Your task to perform on an android device: change keyboard looks Image 0: 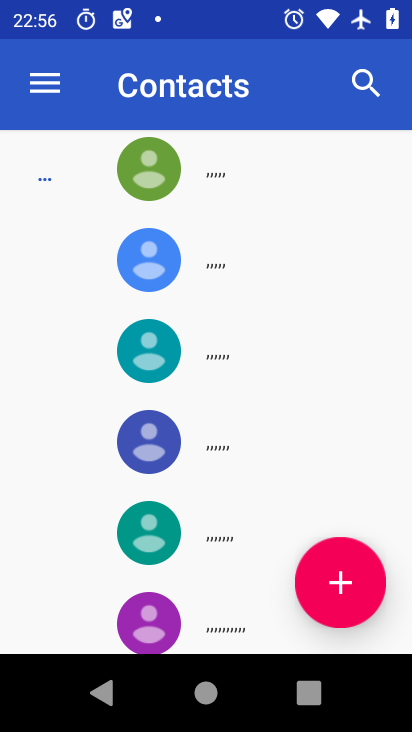
Step 0: press home button
Your task to perform on an android device: change keyboard looks Image 1: 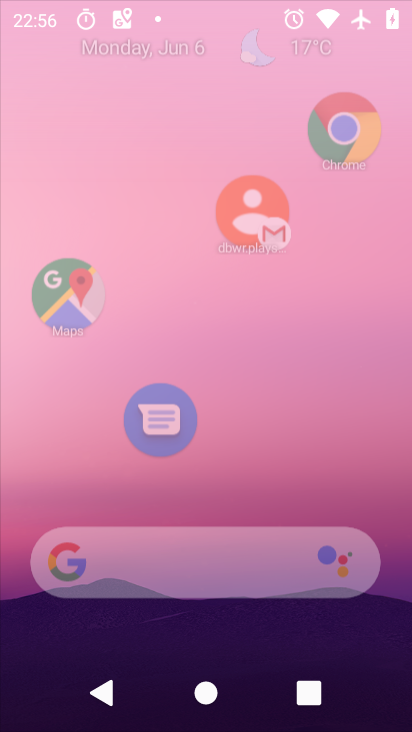
Step 1: drag from (160, 517) to (225, 6)
Your task to perform on an android device: change keyboard looks Image 2: 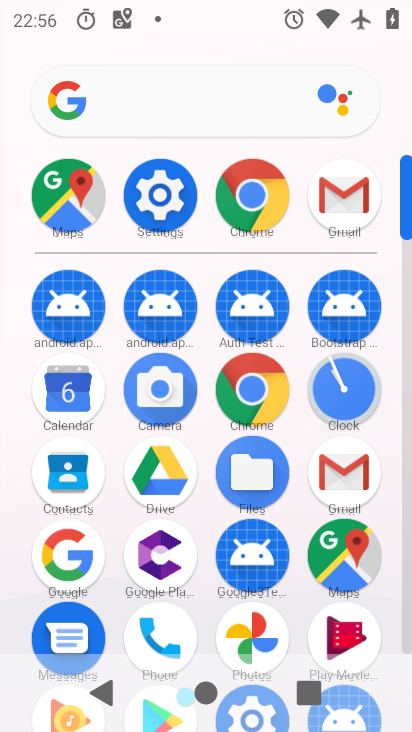
Step 2: click (151, 186)
Your task to perform on an android device: change keyboard looks Image 3: 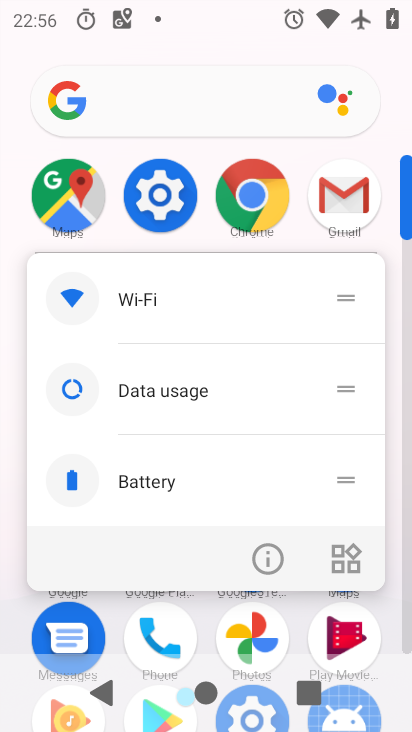
Step 3: click (273, 555)
Your task to perform on an android device: change keyboard looks Image 4: 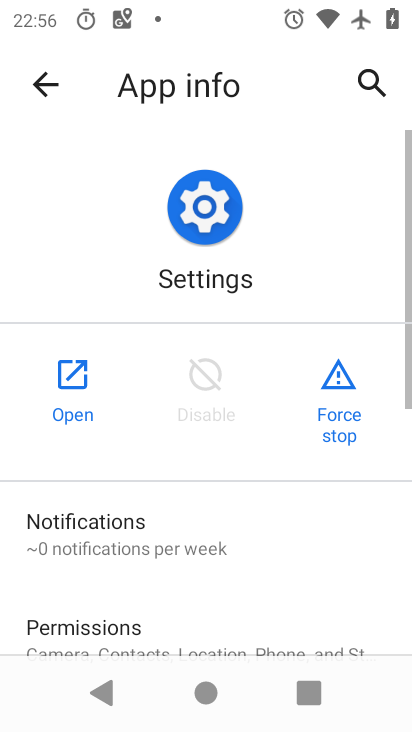
Step 4: click (83, 373)
Your task to perform on an android device: change keyboard looks Image 5: 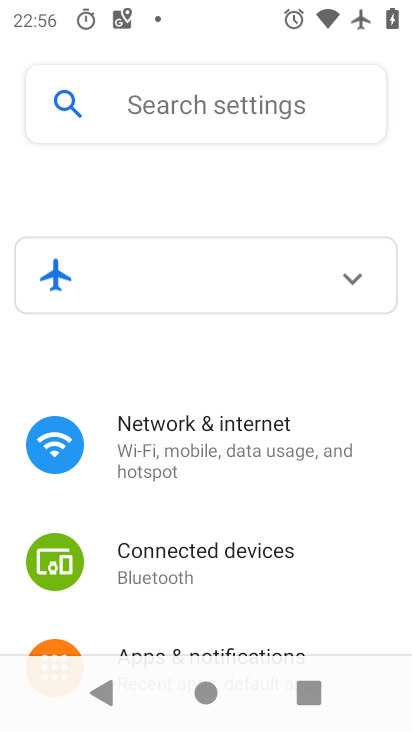
Step 5: drag from (217, 560) to (223, 190)
Your task to perform on an android device: change keyboard looks Image 6: 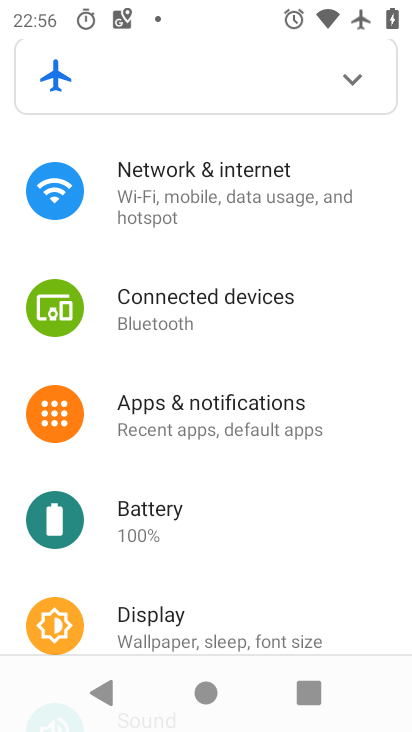
Step 6: drag from (257, 562) to (267, 193)
Your task to perform on an android device: change keyboard looks Image 7: 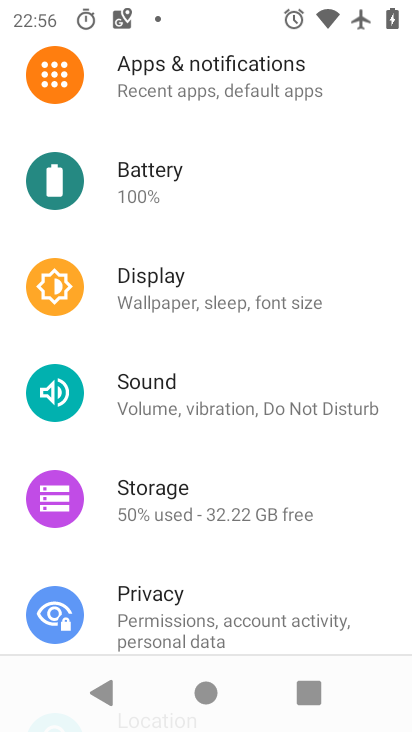
Step 7: drag from (236, 606) to (211, 3)
Your task to perform on an android device: change keyboard looks Image 8: 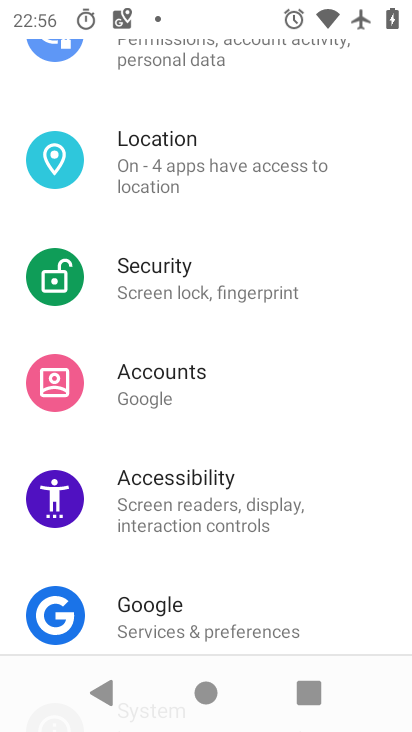
Step 8: drag from (189, 518) to (237, 281)
Your task to perform on an android device: change keyboard looks Image 9: 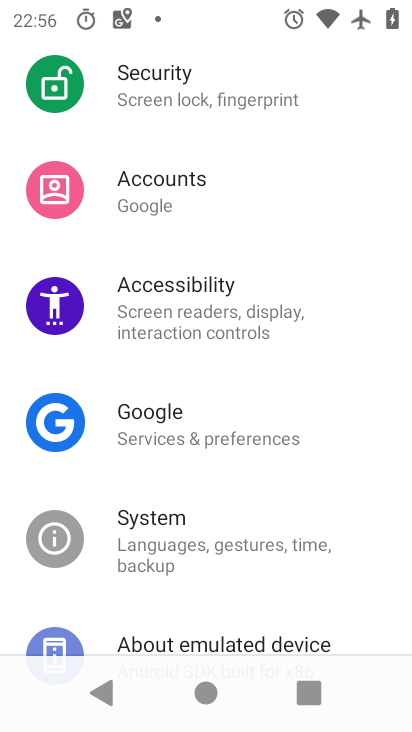
Step 9: drag from (185, 579) to (242, 296)
Your task to perform on an android device: change keyboard looks Image 10: 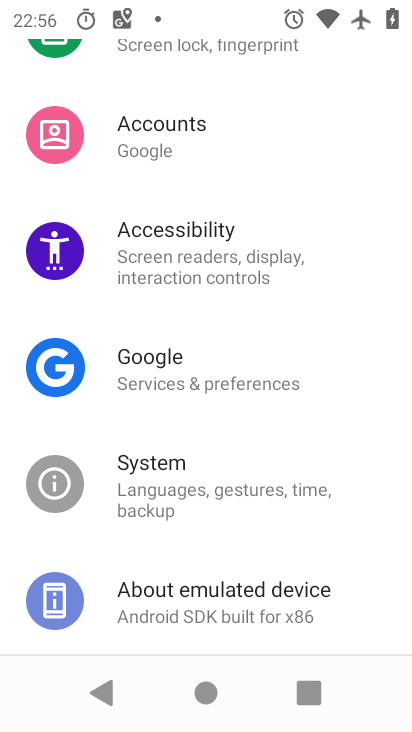
Step 10: click (176, 477)
Your task to perform on an android device: change keyboard looks Image 11: 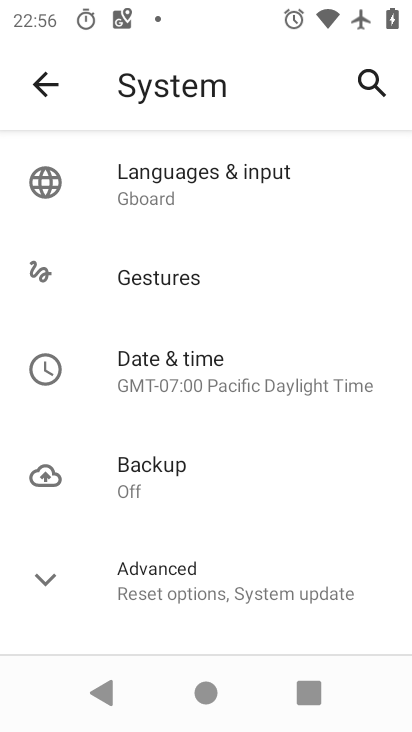
Step 11: drag from (238, 496) to (315, 131)
Your task to perform on an android device: change keyboard looks Image 12: 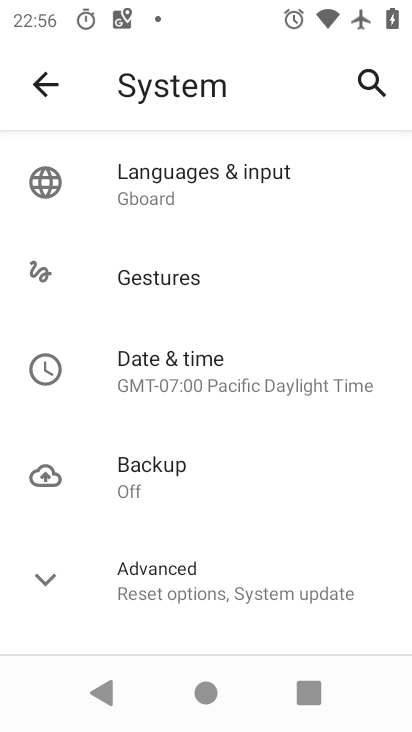
Step 12: drag from (244, 562) to (258, 301)
Your task to perform on an android device: change keyboard looks Image 13: 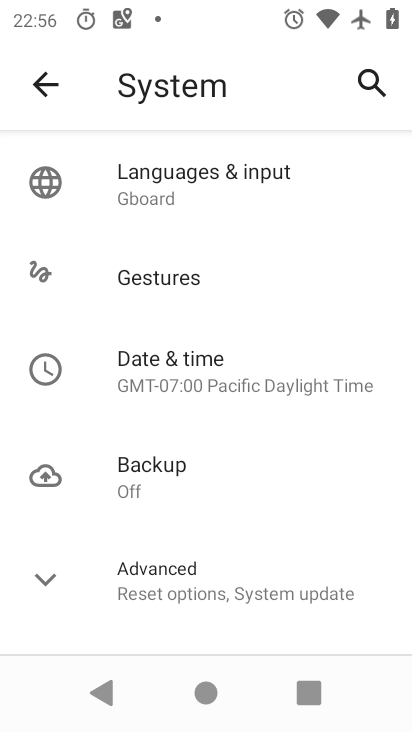
Step 13: click (234, 175)
Your task to perform on an android device: change keyboard looks Image 14: 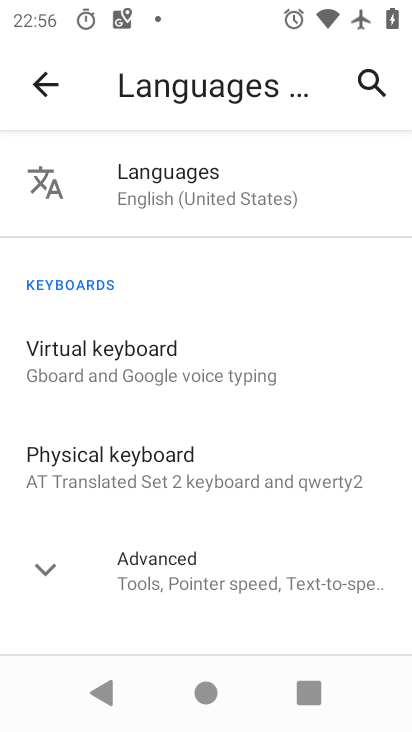
Step 14: click (188, 372)
Your task to perform on an android device: change keyboard looks Image 15: 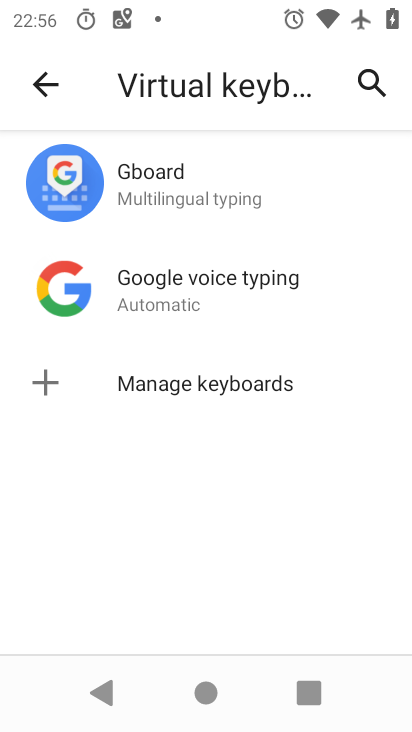
Step 15: drag from (263, 558) to (287, 349)
Your task to perform on an android device: change keyboard looks Image 16: 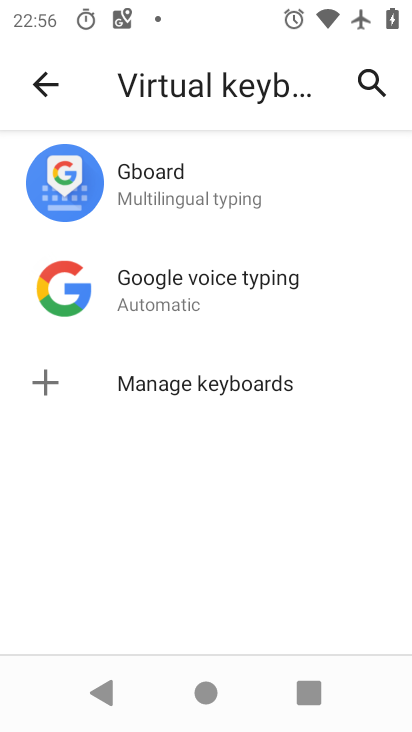
Step 16: click (213, 178)
Your task to perform on an android device: change keyboard looks Image 17: 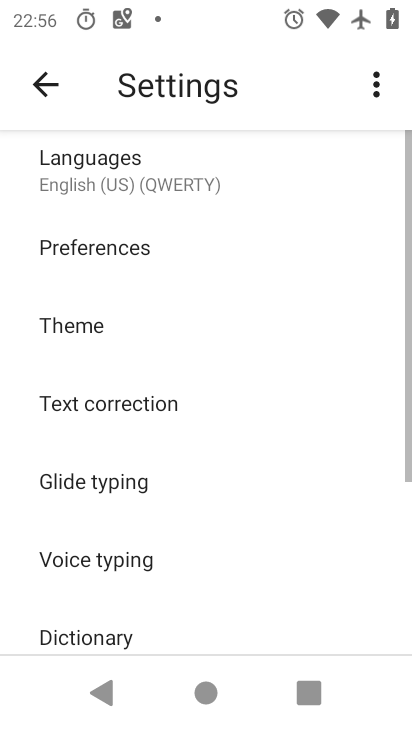
Step 17: click (140, 314)
Your task to perform on an android device: change keyboard looks Image 18: 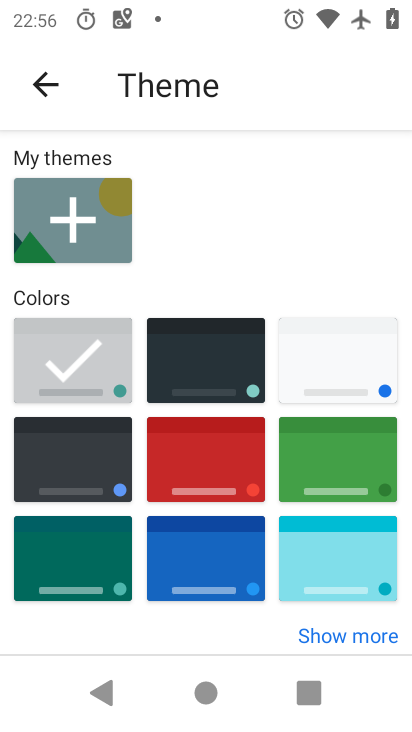
Step 18: drag from (238, 594) to (238, 263)
Your task to perform on an android device: change keyboard looks Image 19: 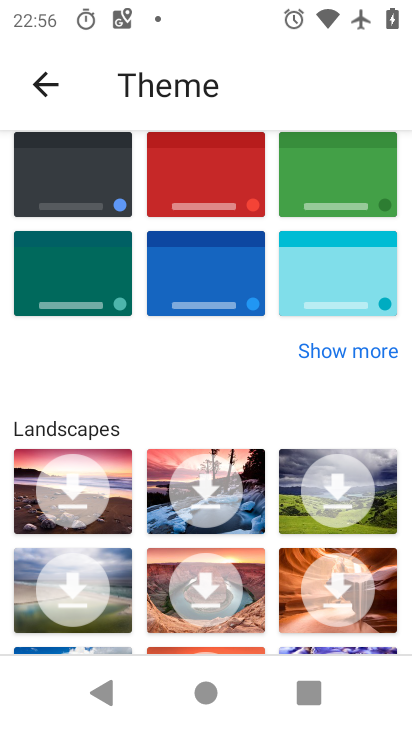
Step 19: click (194, 179)
Your task to perform on an android device: change keyboard looks Image 20: 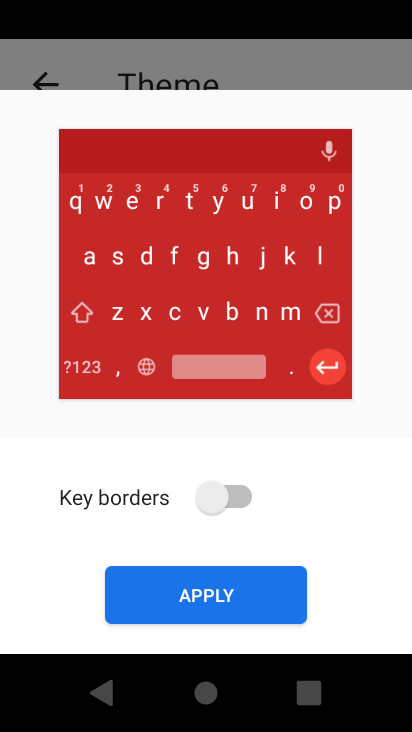
Step 20: click (196, 591)
Your task to perform on an android device: change keyboard looks Image 21: 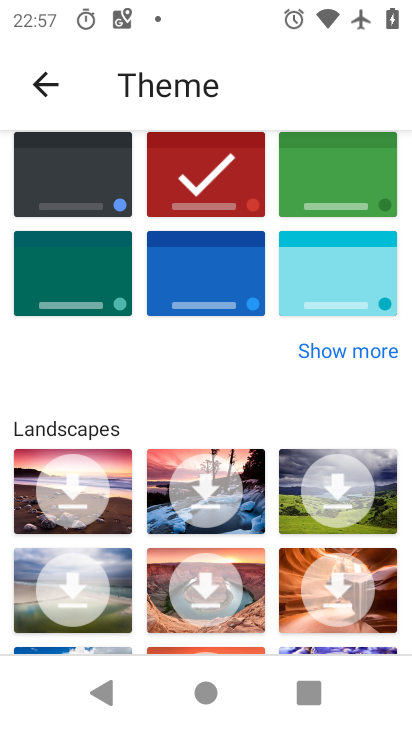
Step 21: task complete